Your task to perform on an android device: Go to ESPN.com Image 0: 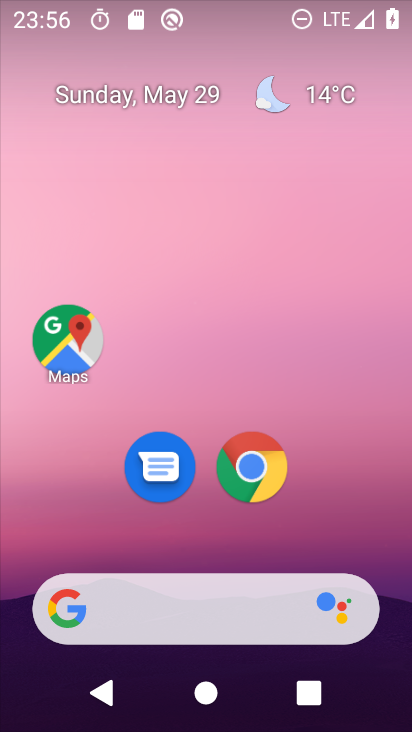
Step 0: click (231, 476)
Your task to perform on an android device: Go to ESPN.com Image 1: 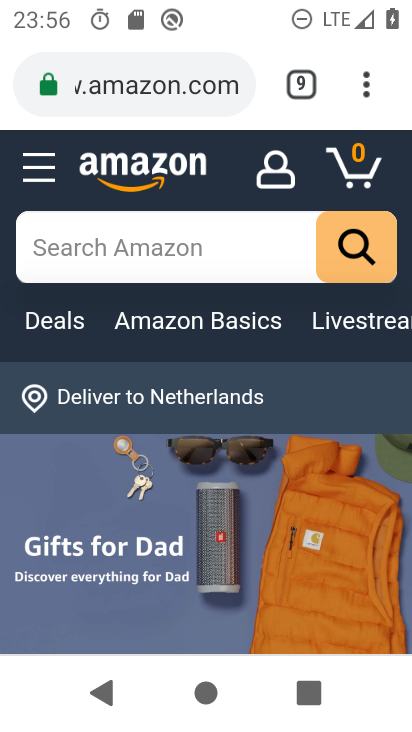
Step 1: click (295, 102)
Your task to perform on an android device: Go to ESPN.com Image 2: 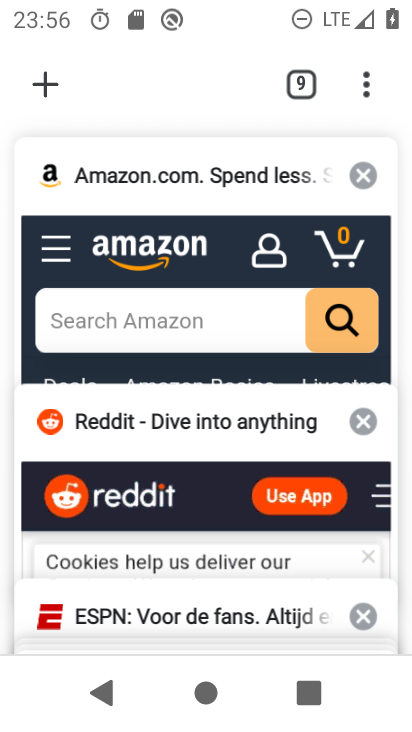
Step 2: drag from (204, 286) to (237, 528)
Your task to perform on an android device: Go to ESPN.com Image 3: 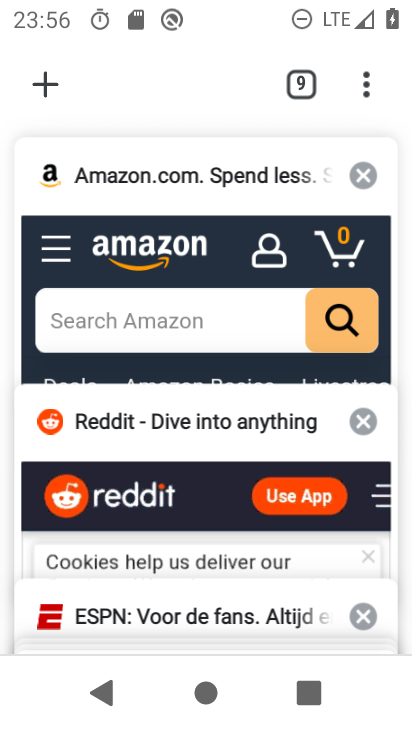
Step 3: drag from (193, 565) to (175, 270)
Your task to perform on an android device: Go to ESPN.com Image 4: 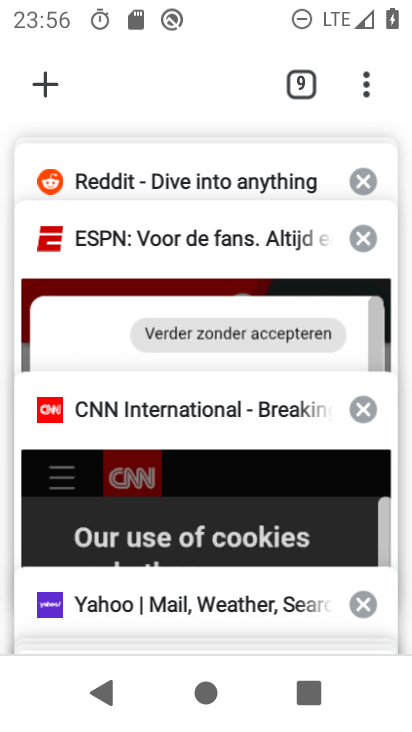
Step 4: click (148, 302)
Your task to perform on an android device: Go to ESPN.com Image 5: 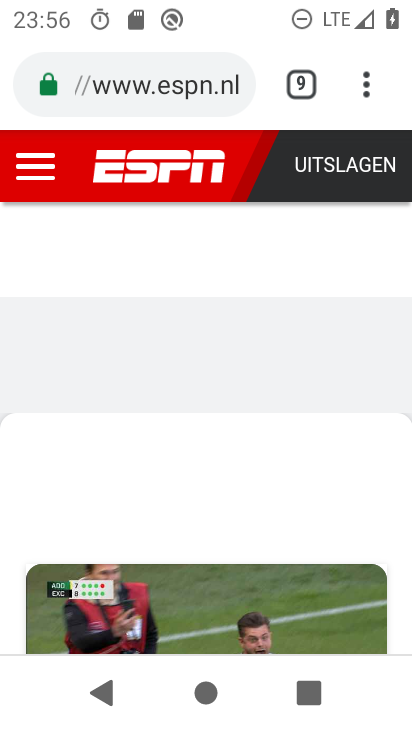
Step 5: task complete